Your task to perform on an android device: Search for vegetarian restaurants on Maps Image 0: 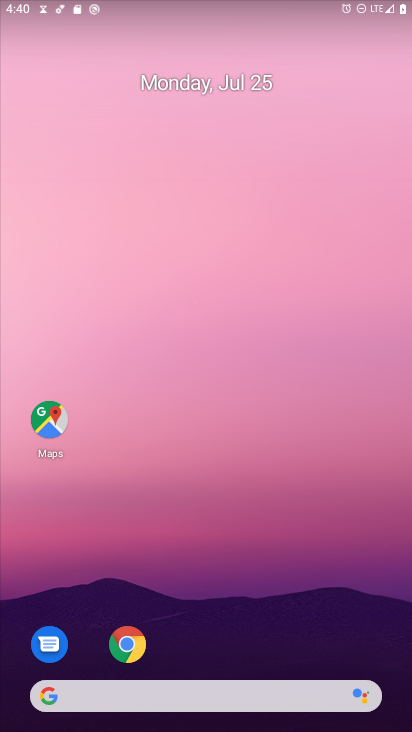
Step 0: press home button
Your task to perform on an android device: Search for vegetarian restaurants on Maps Image 1: 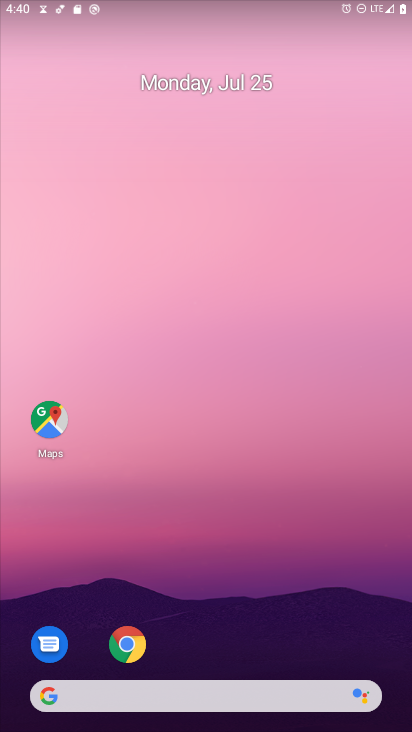
Step 1: click (55, 419)
Your task to perform on an android device: Search for vegetarian restaurants on Maps Image 2: 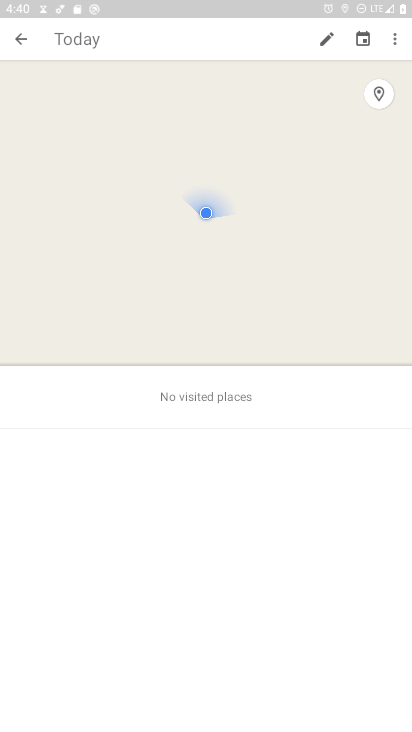
Step 2: click (25, 40)
Your task to perform on an android device: Search for vegetarian restaurants on Maps Image 3: 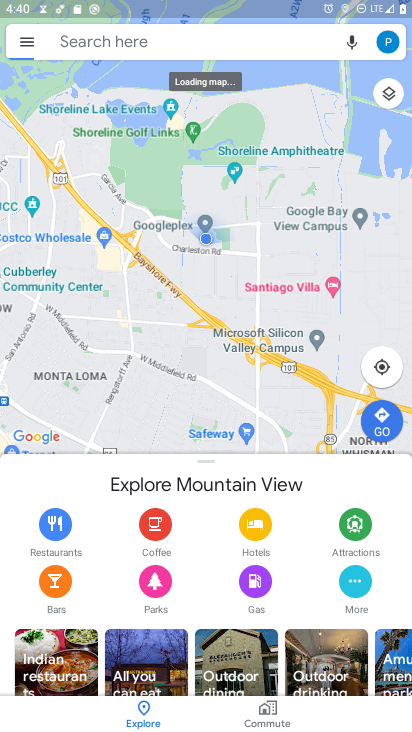
Step 3: type "vegetarian restaurants"
Your task to perform on an android device: Search for vegetarian restaurants on Maps Image 4: 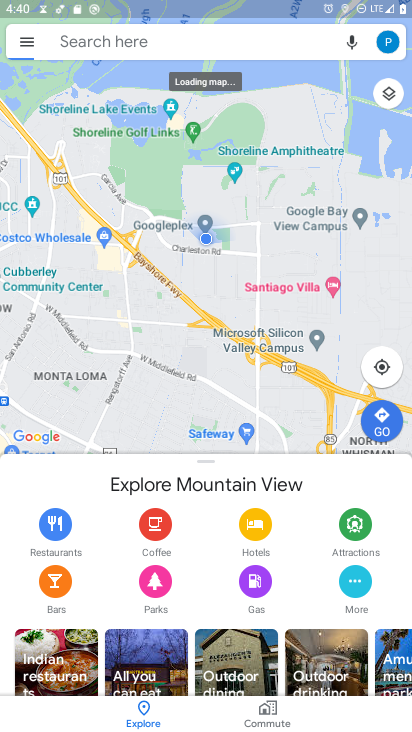
Step 4: click (86, 35)
Your task to perform on an android device: Search for vegetarian restaurants on Maps Image 5: 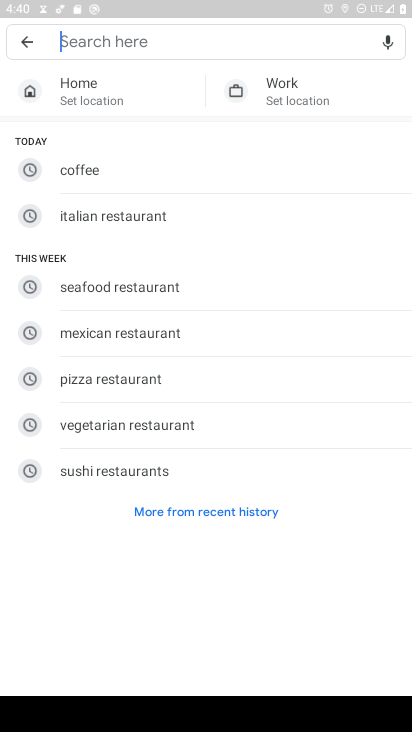
Step 5: click (125, 428)
Your task to perform on an android device: Search for vegetarian restaurants on Maps Image 6: 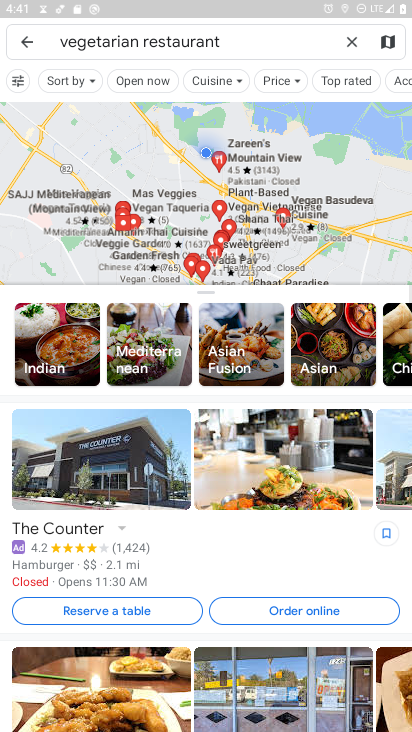
Step 6: task complete